Your task to perform on an android device: star an email in the gmail app Image 0: 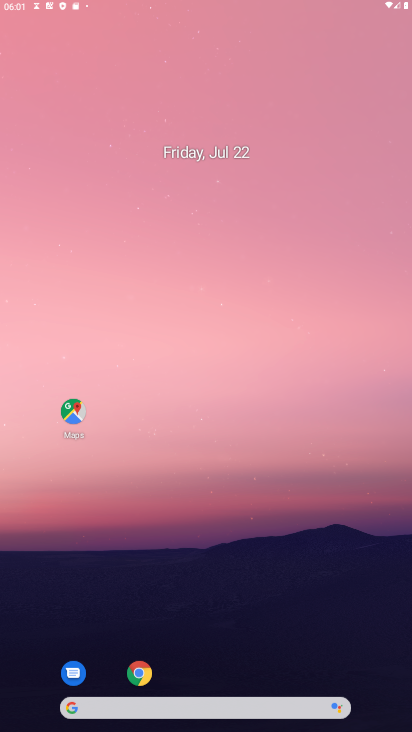
Step 0: press home button
Your task to perform on an android device: star an email in the gmail app Image 1: 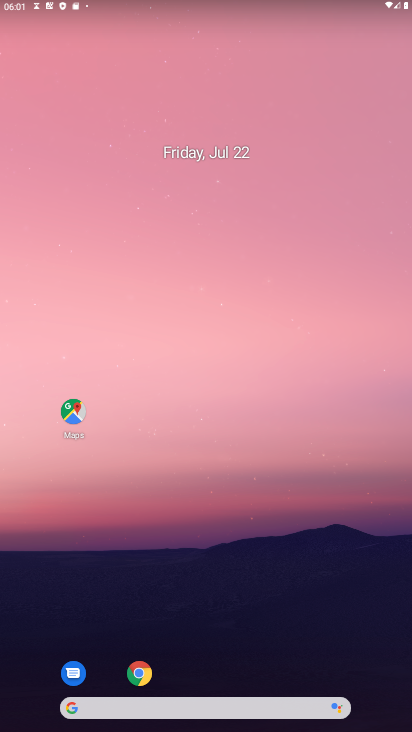
Step 1: drag from (215, 653) to (202, 135)
Your task to perform on an android device: star an email in the gmail app Image 2: 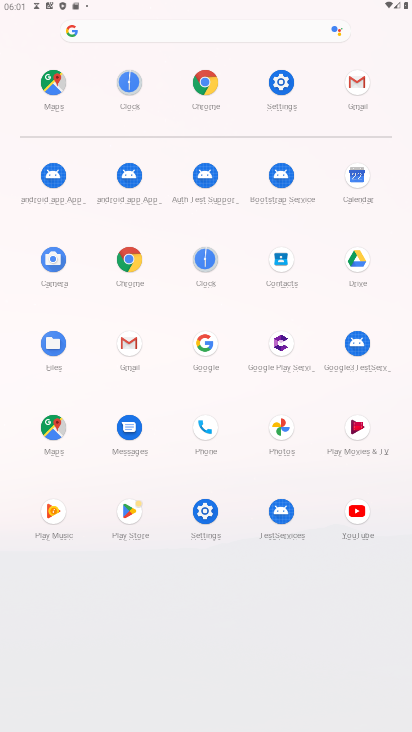
Step 2: click (371, 82)
Your task to perform on an android device: star an email in the gmail app Image 3: 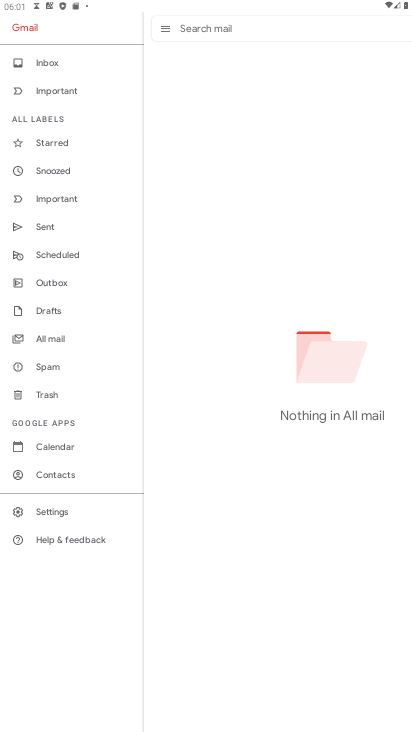
Step 3: click (49, 340)
Your task to perform on an android device: star an email in the gmail app Image 4: 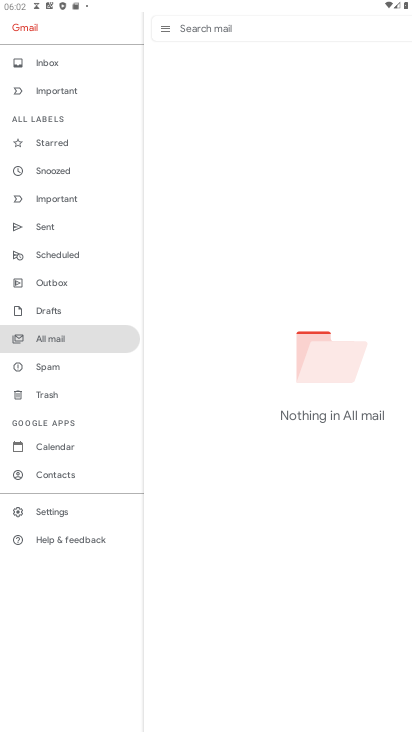
Step 4: task complete